Your task to perform on an android device: turn on showing notifications on the lock screen Image 0: 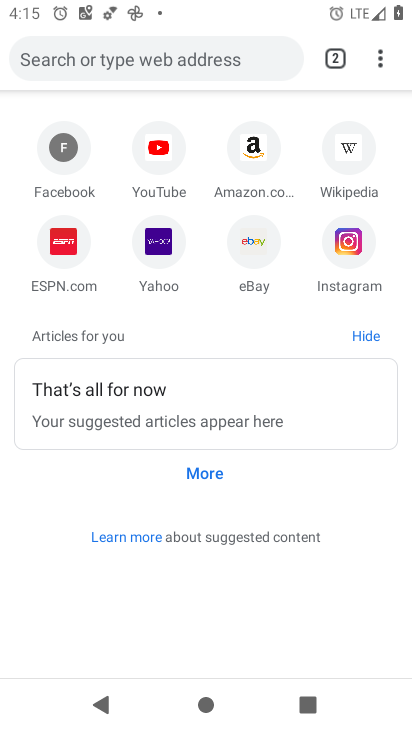
Step 0: press home button
Your task to perform on an android device: turn on showing notifications on the lock screen Image 1: 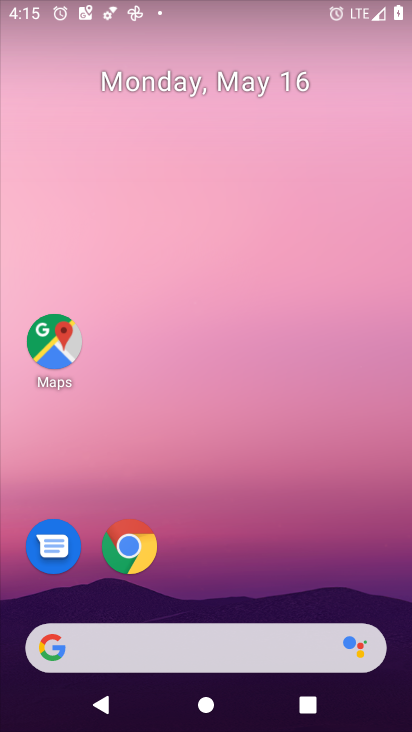
Step 1: drag from (325, 557) to (348, 95)
Your task to perform on an android device: turn on showing notifications on the lock screen Image 2: 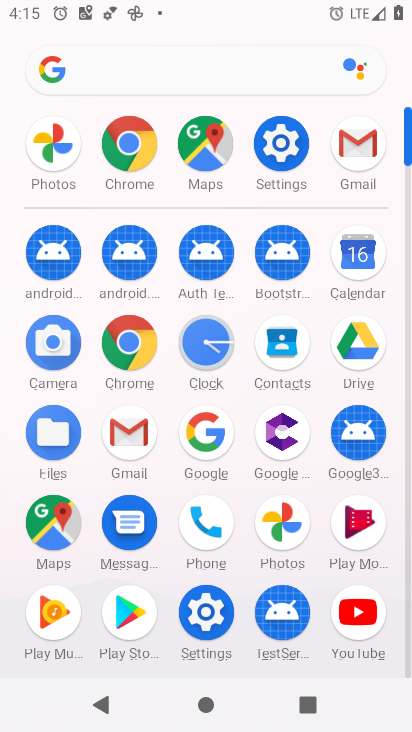
Step 2: click (293, 145)
Your task to perform on an android device: turn on showing notifications on the lock screen Image 3: 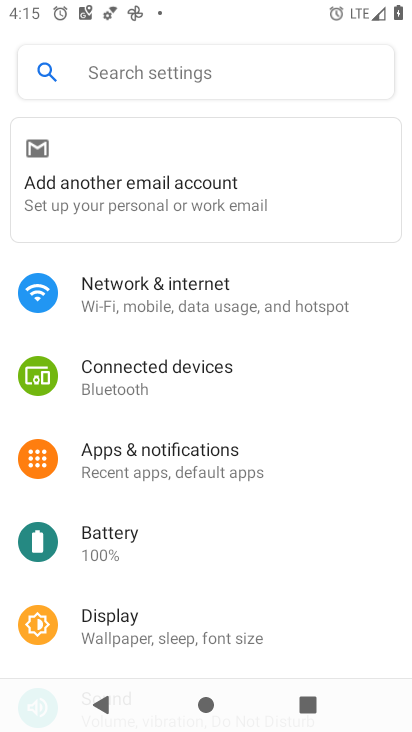
Step 3: drag from (335, 579) to (333, 388)
Your task to perform on an android device: turn on showing notifications on the lock screen Image 4: 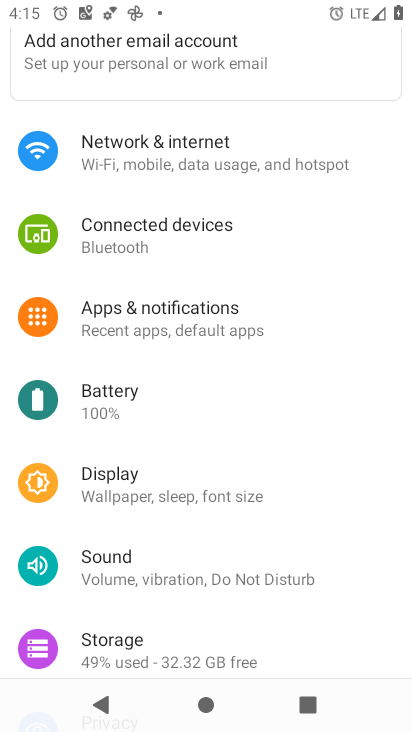
Step 4: drag from (336, 641) to (344, 441)
Your task to perform on an android device: turn on showing notifications on the lock screen Image 5: 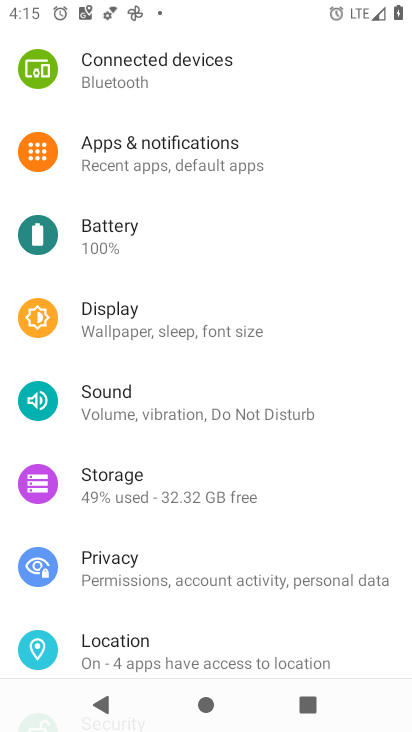
Step 5: drag from (326, 634) to (335, 431)
Your task to perform on an android device: turn on showing notifications on the lock screen Image 6: 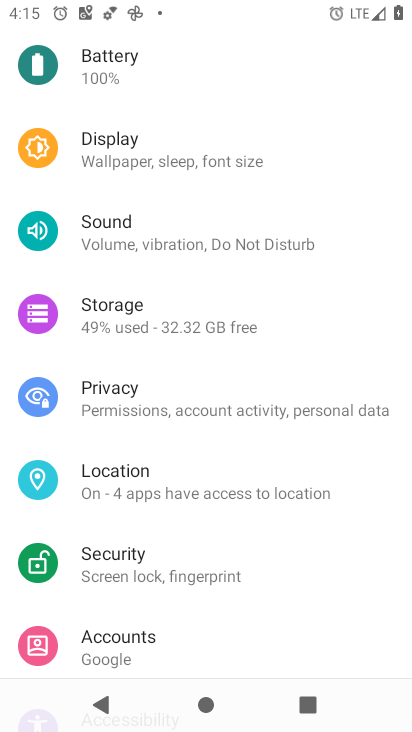
Step 6: drag from (336, 619) to (340, 457)
Your task to perform on an android device: turn on showing notifications on the lock screen Image 7: 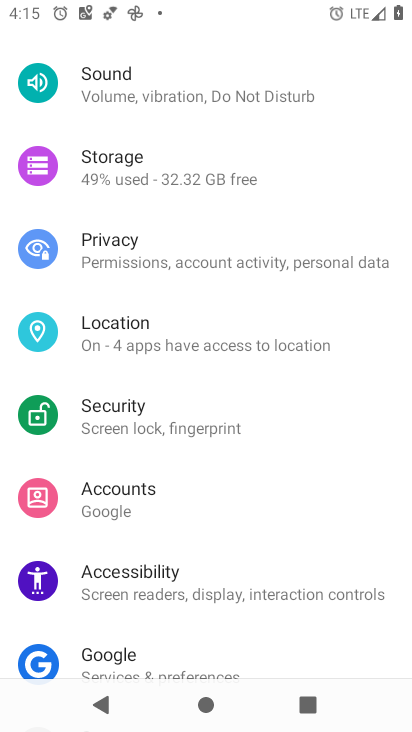
Step 7: drag from (321, 639) to (337, 484)
Your task to perform on an android device: turn on showing notifications on the lock screen Image 8: 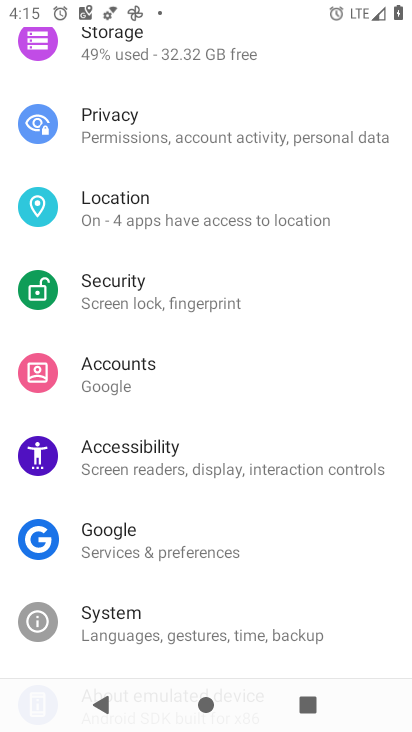
Step 8: drag from (357, 303) to (344, 449)
Your task to perform on an android device: turn on showing notifications on the lock screen Image 9: 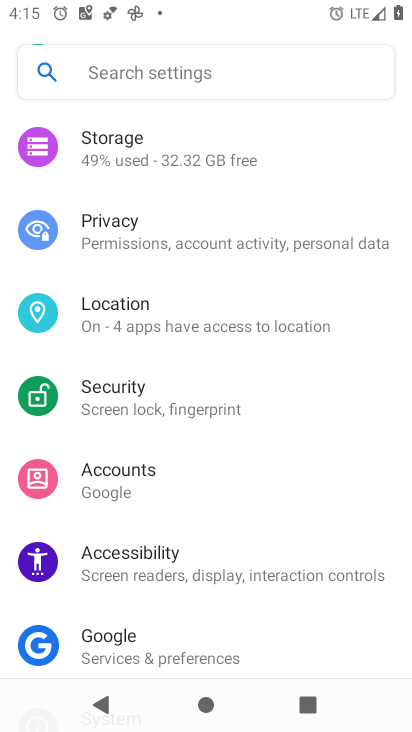
Step 9: drag from (356, 291) to (343, 490)
Your task to perform on an android device: turn on showing notifications on the lock screen Image 10: 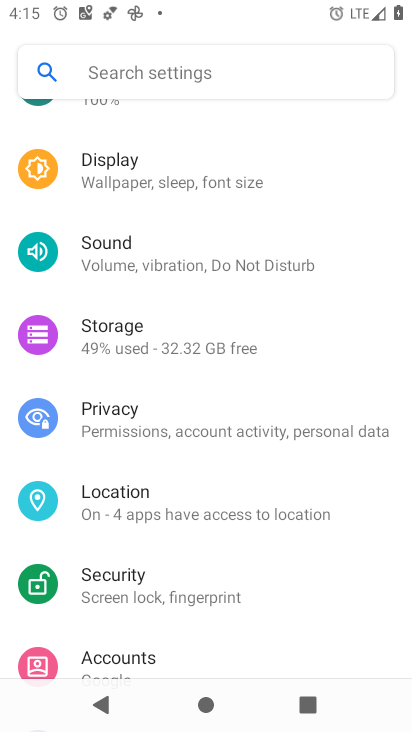
Step 10: drag from (343, 281) to (343, 427)
Your task to perform on an android device: turn on showing notifications on the lock screen Image 11: 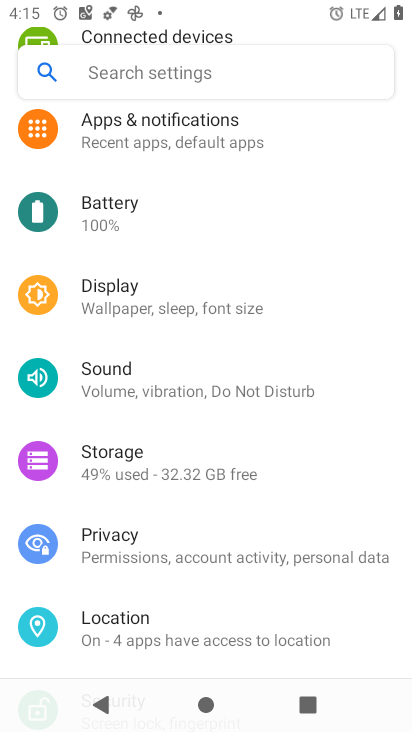
Step 11: drag from (350, 311) to (342, 438)
Your task to perform on an android device: turn on showing notifications on the lock screen Image 12: 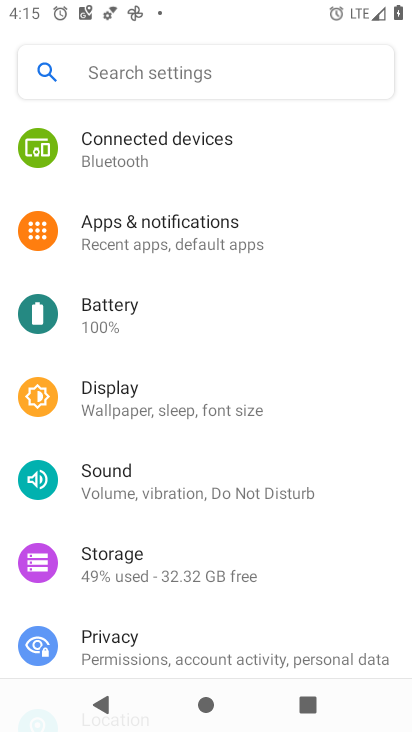
Step 12: drag from (335, 244) to (334, 383)
Your task to perform on an android device: turn on showing notifications on the lock screen Image 13: 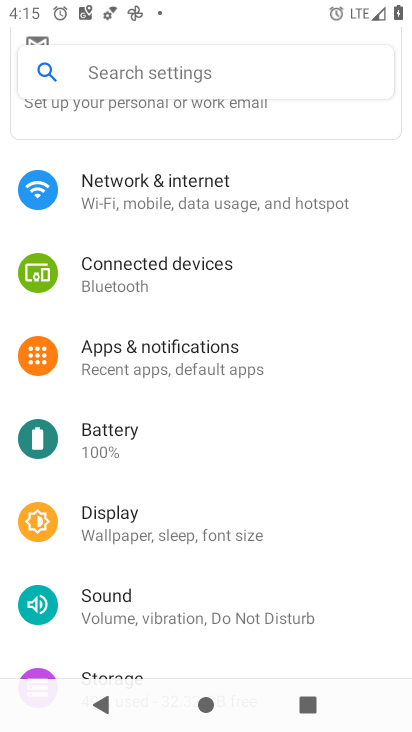
Step 13: click (195, 380)
Your task to perform on an android device: turn on showing notifications on the lock screen Image 14: 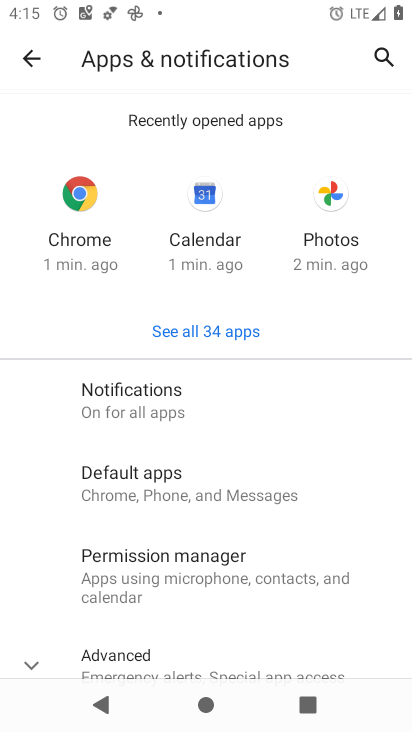
Step 14: click (183, 396)
Your task to perform on an android device: turn on showing notifications on the lock screen Image 15: 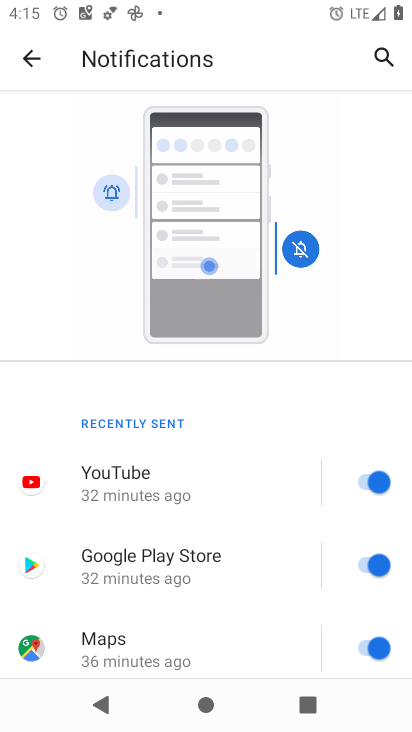
Step 15: drag from (280, 581) to (275, 408)
Your task to perform on an android device: turn on showing notifications on the lock screen Image 16: 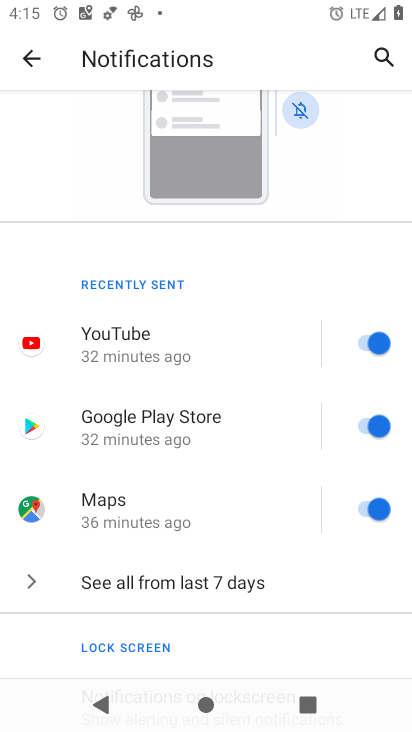
Step 16: drag from (271, 551) to (272, 424)
Your task to perform on an android device: turn on showing notifications on the lock screen Image 17: 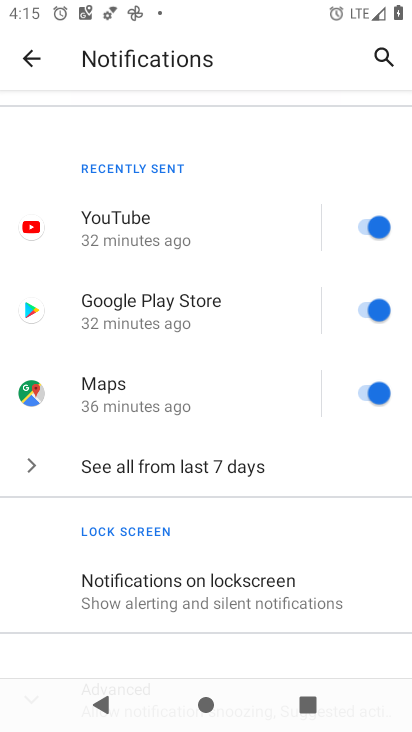
Step 17: drag from (272, 609) to (295, 392)
Your task to perform on an android device: turn on showing notifications on the lock screen Image 18: 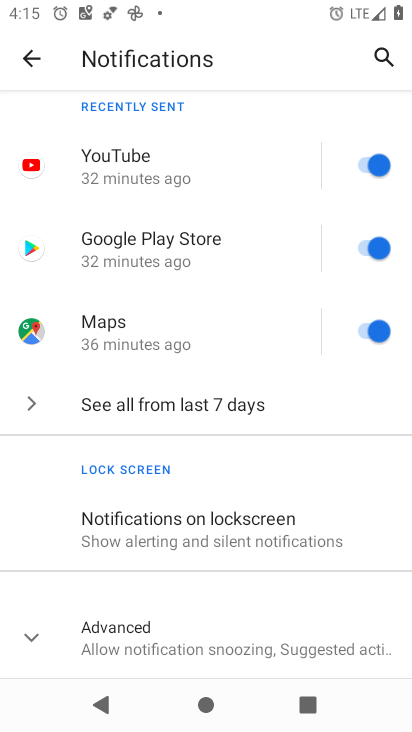
Step 18: click (300, 548)
Your task to perform on an android device: turn on showing notifications on the lock screen Image 19: 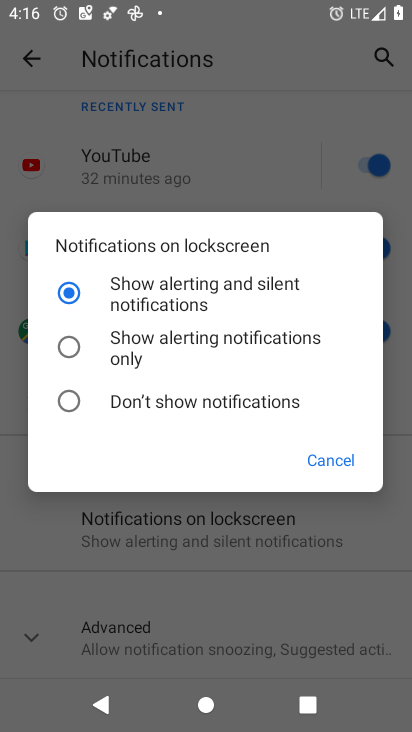
Step 19: task complete